Your task to perform on an android device: turn off location Image 0: 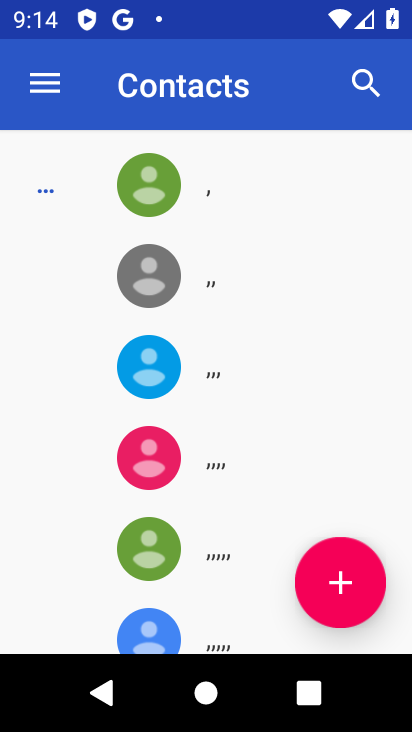
Step 0: press back button
Your task to perform on an android device: turn off location Image 1: 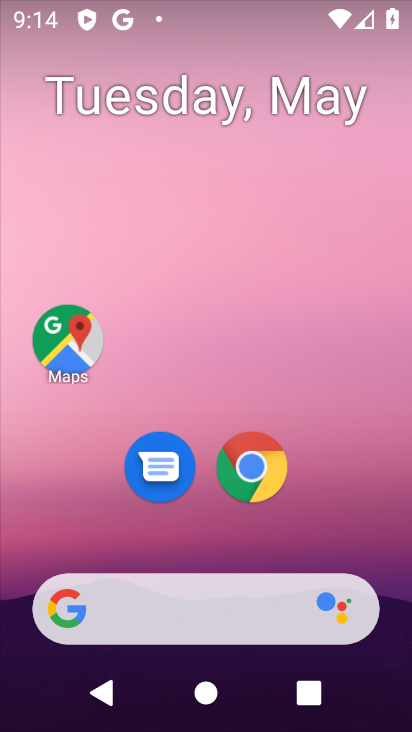
Step 1: drag from (381, 570) to (285, 32)
Your task to perform on an android device: turn off location Image 2: 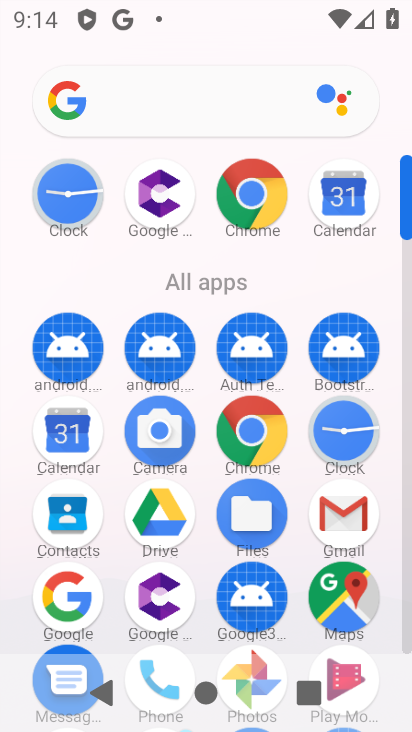
Step 2: drag from (14, 551) to (6, 248)
Your task to perform on an android device: turn off location Image 3: 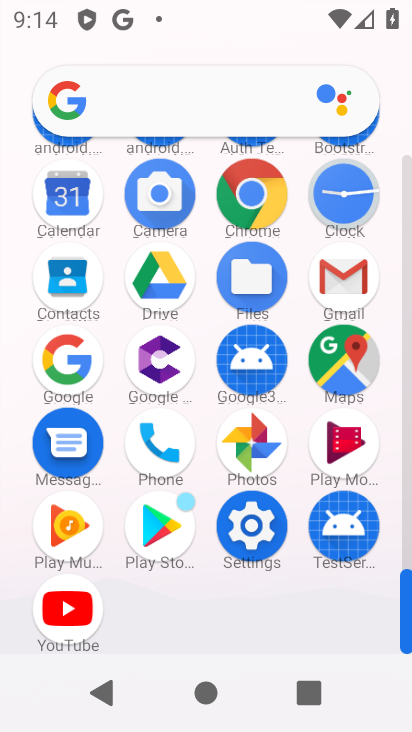
Step 3: click (251, 525)
Your task to perform on an android device: turn off location Image 4: 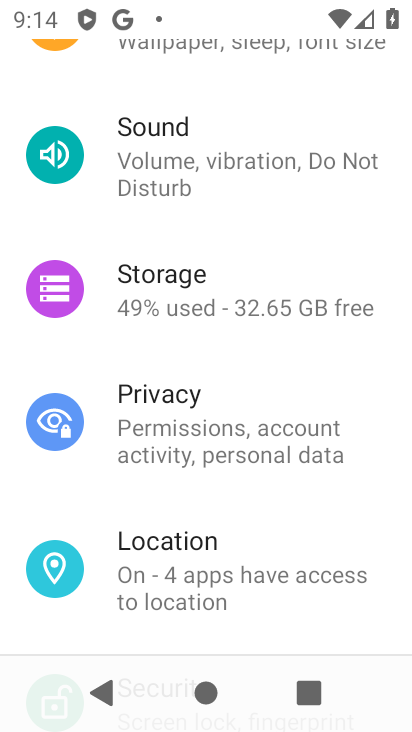
Step 4: click (209, 558)
Your task to perform on an android device: turn off location Image 5: 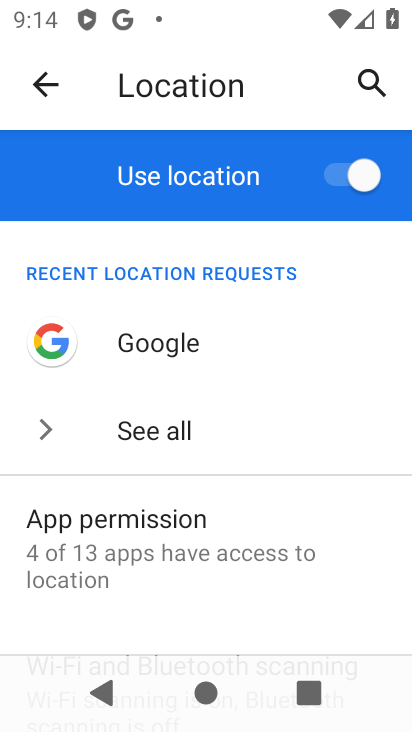
Step 5: click (362, 160)
Your task to perform on an android device: turn off location Image 6: 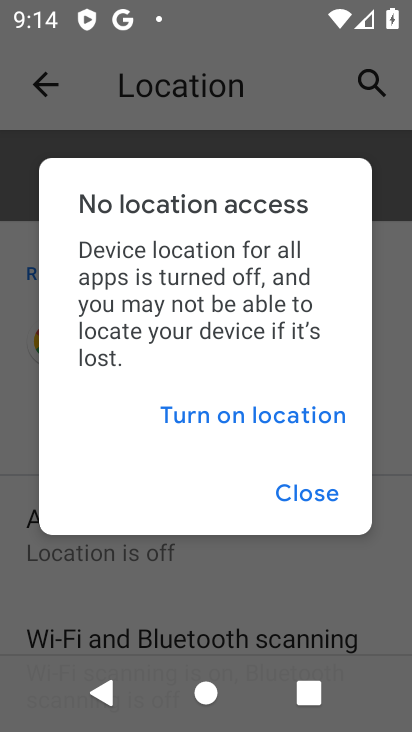
Step 6: click (289, 494)
Your task to perform on an android device: turn off location Image 7: 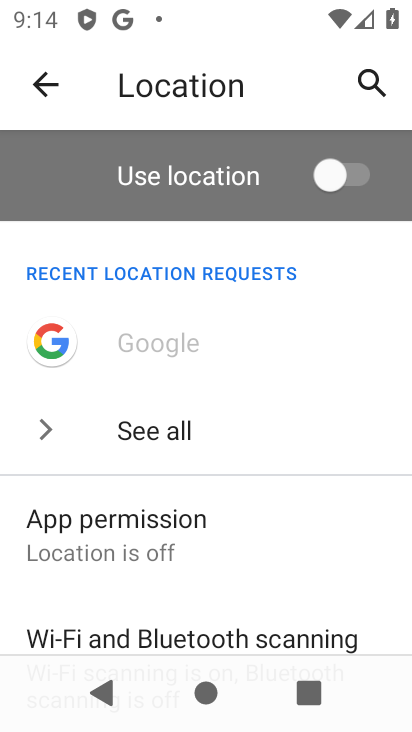
Step 7: task complete